Your task to perform on an android device: turn off improve location accuracy Image 0: 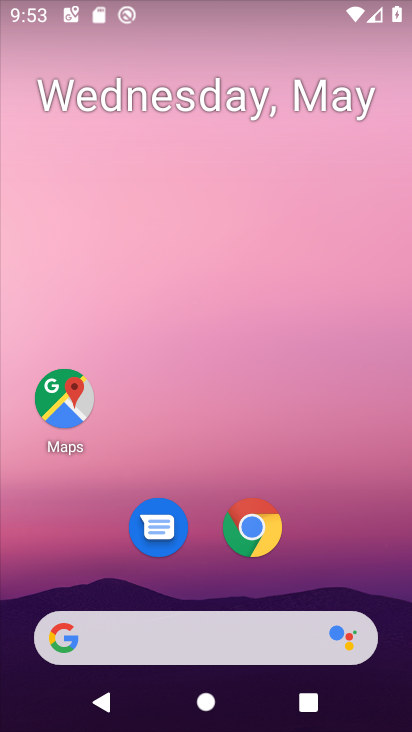
Step 0: drag from (203, 503) to (204, 152)
Your task to perform on an android device: turn off improve location accuracy Image 1: 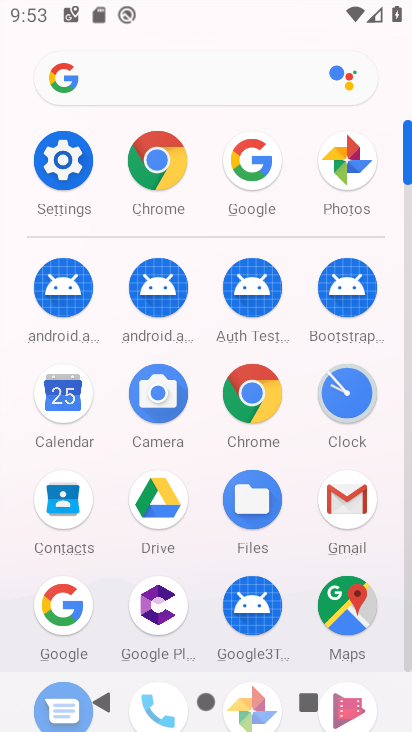
Step 1: click (60, 157)
Your task to perform on an android device: turn off improve location accuracy Image 2: 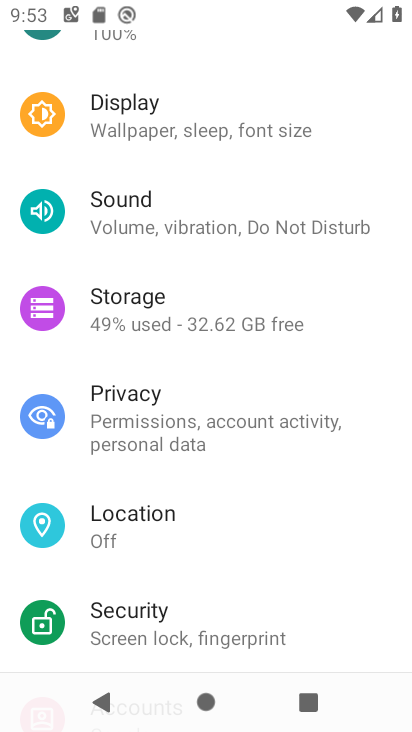
Step 2: click (186, 533)
Your task to perform on an android device: turn off improve location accuracy Image 3: 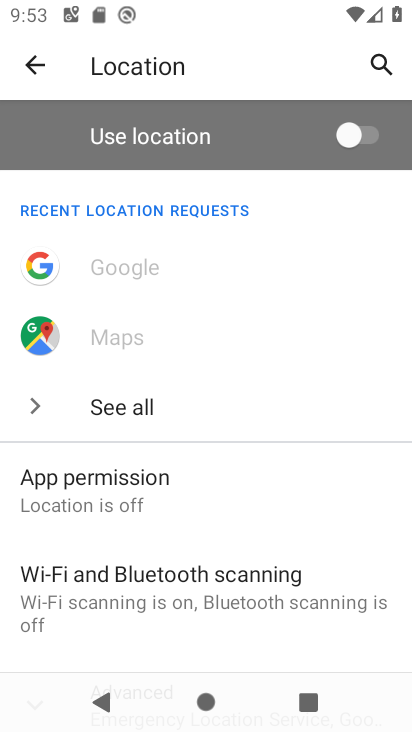
Step 3: drag from (132, 618) to (156, 257)
Your task to perform on an android device: turn off improve location accuracy Image 4: 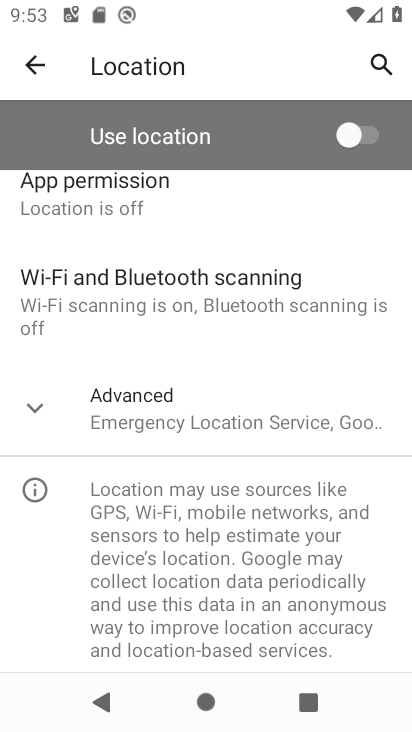
Step 4: click (123, 420)
Your task to perform on an android device: turn off improve location accuracy Image 5: 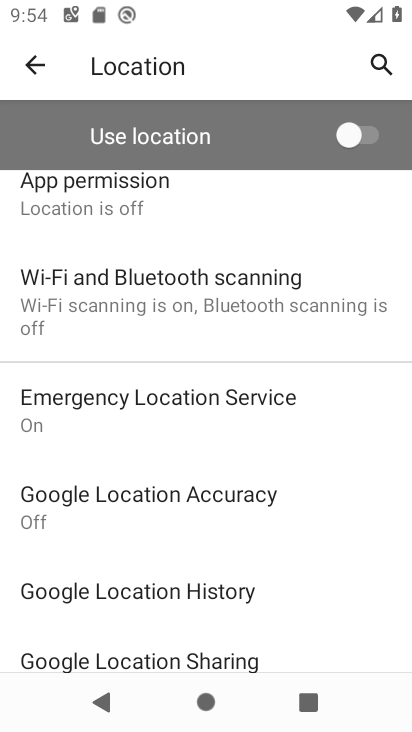
Step 5: task complete